Your task to perform on an android device: Open Google Image 0: 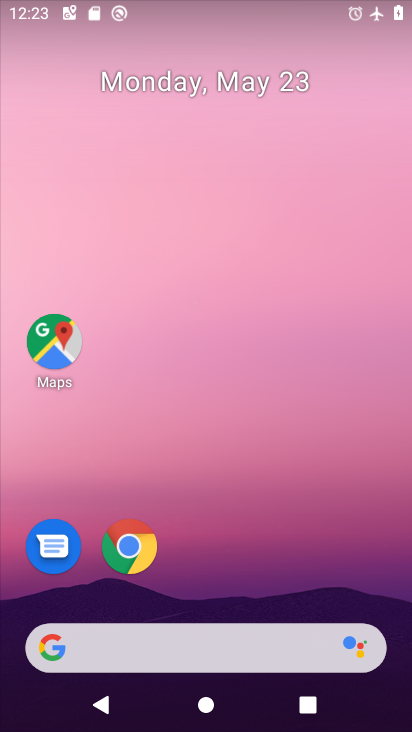
Step 0: drag from (279, 600) to (330, 98)
Your task to perform on an android device: Open Google Image 1: 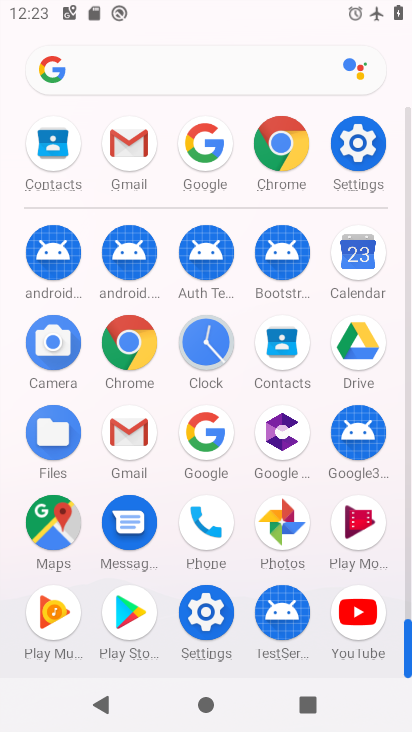
Step 1: click (204, 460)
Your task to perform on an android device: Open Google Image 2: 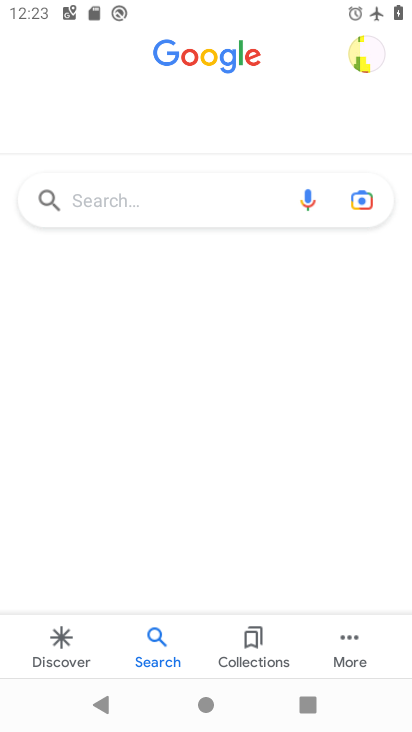
Step 2: task complete